Your task to perform on an android device: When is my next meeting? Image 0: 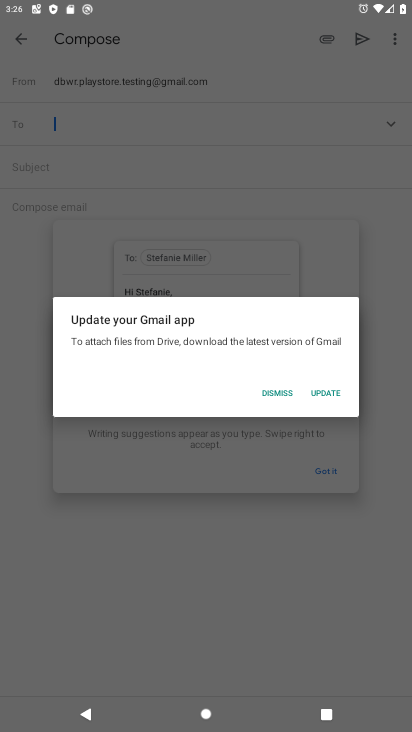
Step 0: press home button
Your task to perform on an android device: When is my next meeting? Image 1: 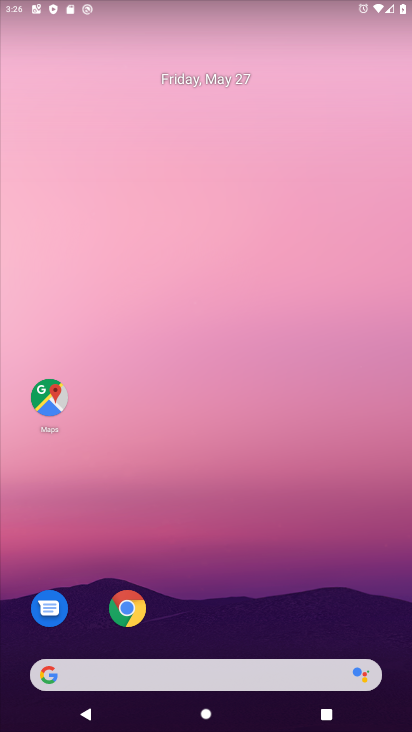
Step 1: drag from (212, 630) to (214, 304)
Your task to perform on an android device: When is my next meeting? Image 2: 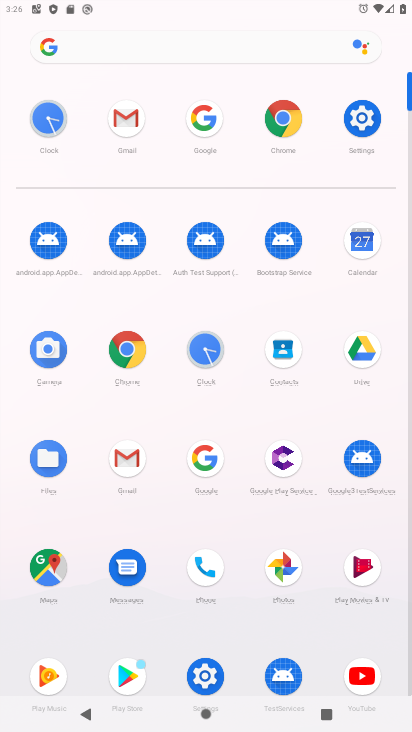
Step 2: click (359, 246)
Your task to perform on an android device: When is my next meeting? Image 3: 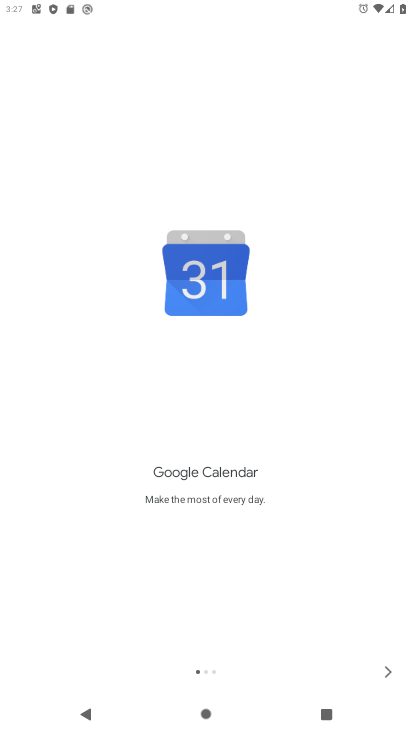
Step 3: click (381, 676)
Your task to perform on an android device: When is my next meeting? Image 4: 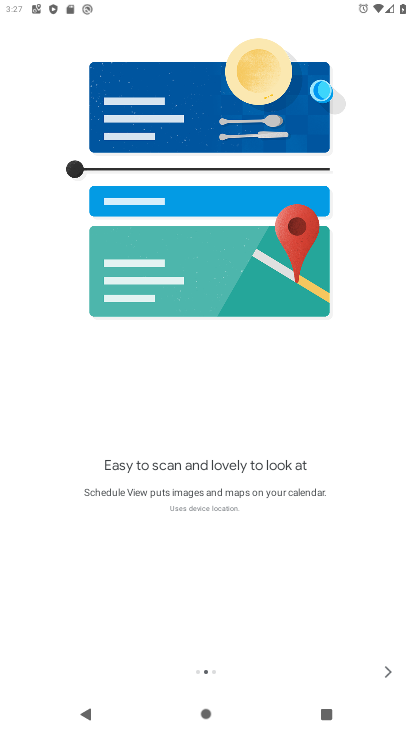
Step 4: click (392, 671)
Your task to perform on an android device: When is my next meeting? Image 5: 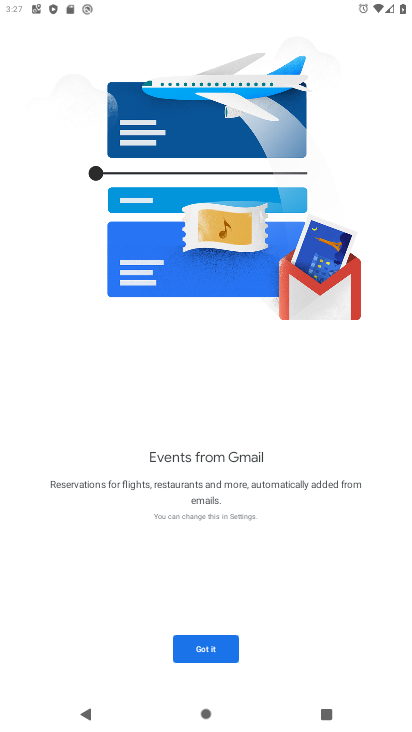
Step 5: click (211, 655)
Your task to perform on an android device: When is my next meeting? Image 6: 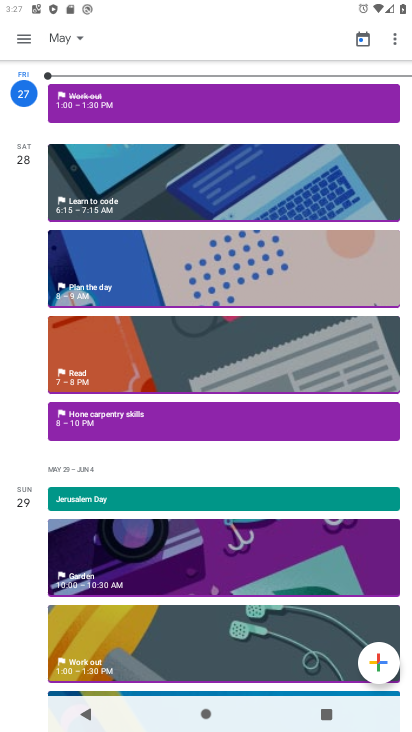
Step 6: click (62, 38)
Your task to perform on an android device: When is my next meeting? Image 7: 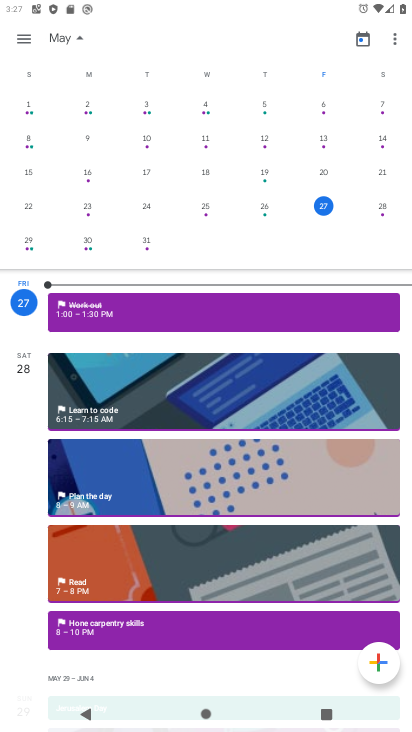
Step 7: click (381, 209)
Your task to perform on an android device: When is my next meeting? Image 8: 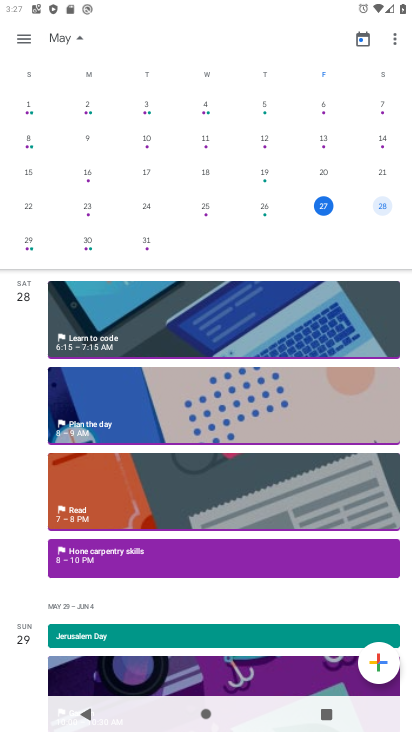
Step 8: click (162, 323)
Your task to perform on an android device: When is my next meeting? Image 9: 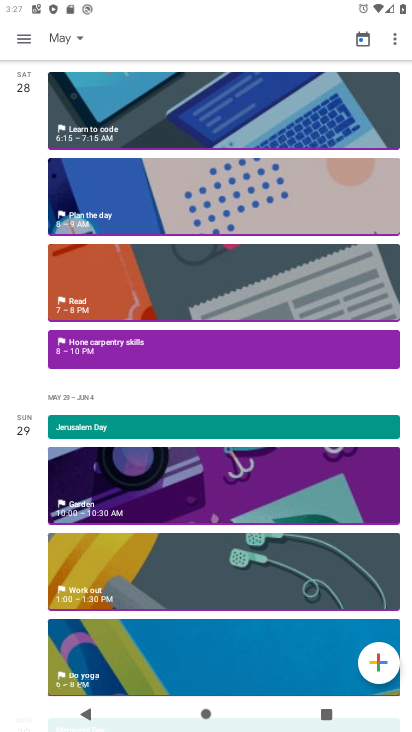
Step 9: task complete